Your task to perform on an android device: Show me the alarms in the clock app Image 0: 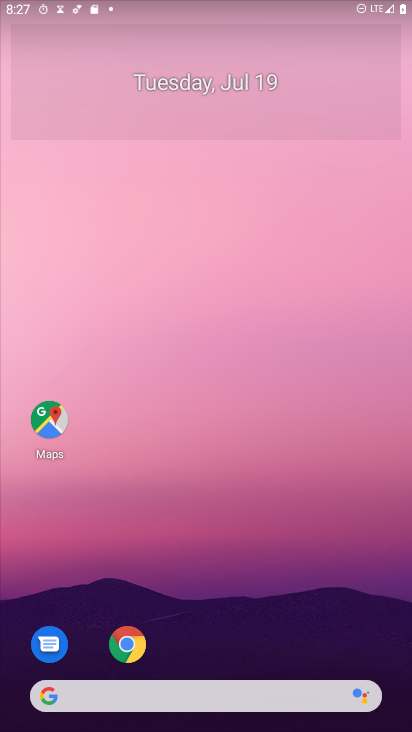
Step 0: click (349, 35)
Your task to perform on an android device: Show me the alarms in the clock app Image 1: 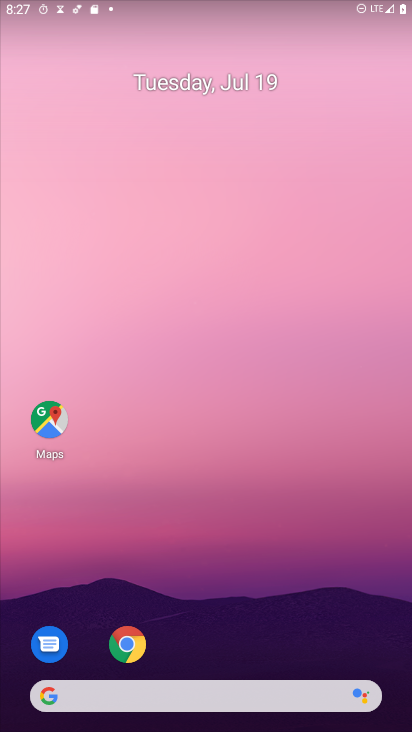
Step 1: drag from (17, 693) to (312, 120)
Your task to perform on an android device: Show me the alarms in the clock app Image 2: 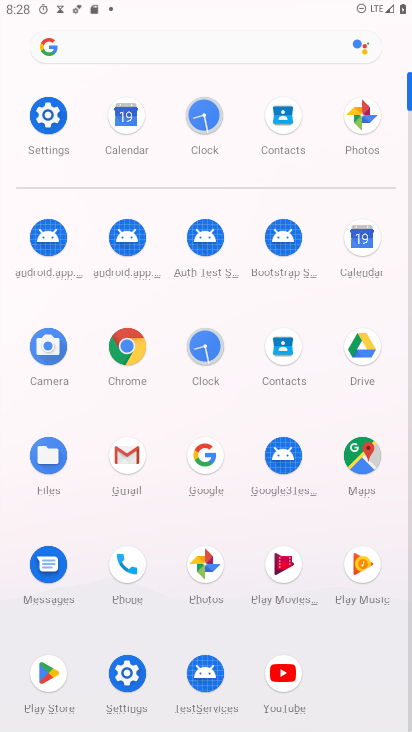
Step 2: click (198, 126)
Your task to perform on an android device: Show me the alarms in the clock app Image 3: 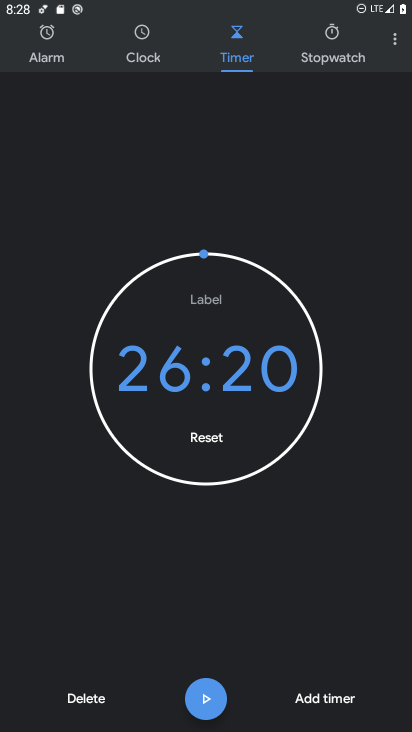
Step 3: click (44, 57)
Your task to perform on an android device: Show me the alarms in the clock app Image 4: 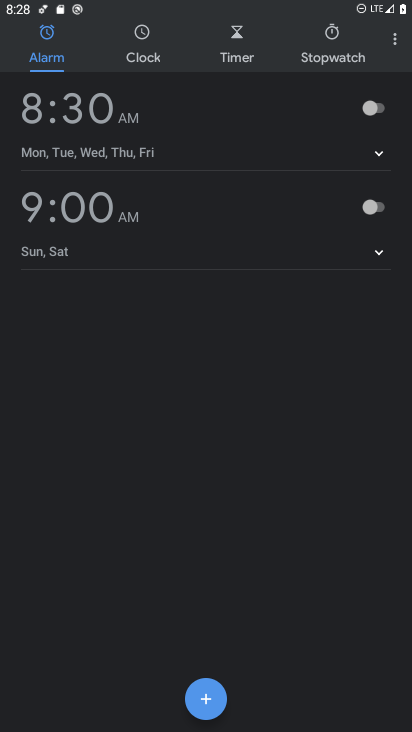
Step 4: task complete